Your task to perform on an android device: Open calendar and show me the second week of next month Image 0: 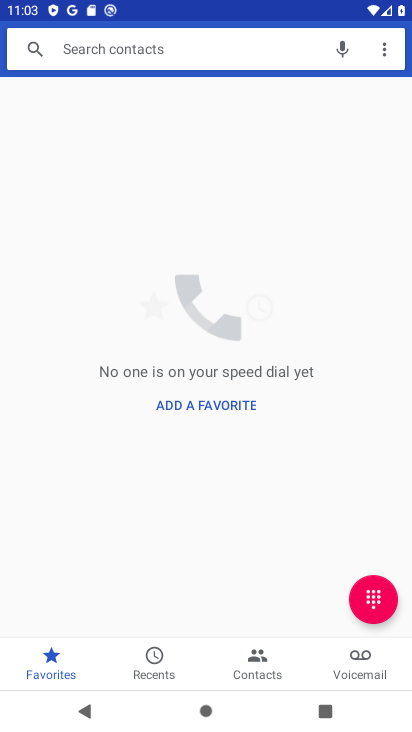
Step 0: press home button
Your task to perform on an android device: Open calendar and show me the second week of next month Image 1: 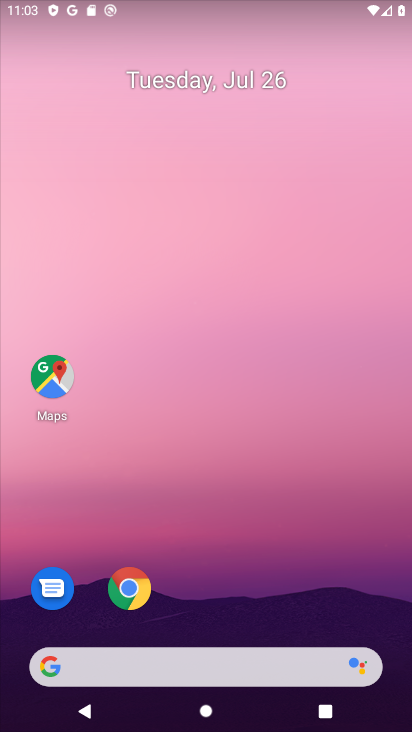
Step 1: drag from (232, 605) to (299, 28)
Your task to perform on an android device: Open calendar and show me the second week of next month Image 2: 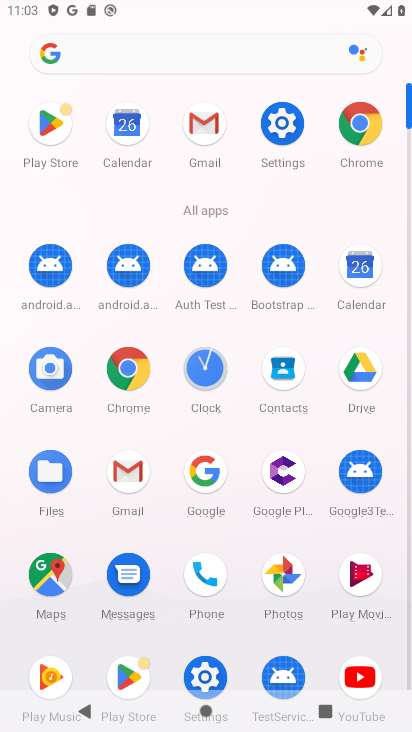
Step 2: click (355, 260)
Your task to perform on an android device: Open calendar and show me the second week of next month Image 3: 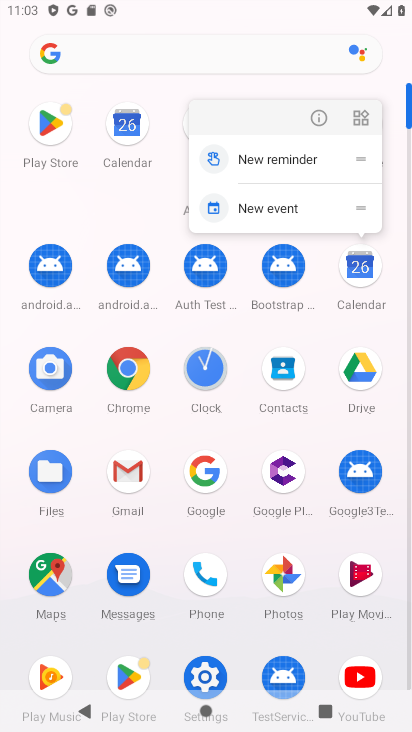
Step 3: click (363, 267)
Your task to perform on an android device: Open calendar and show me the second week of next month Image 4: 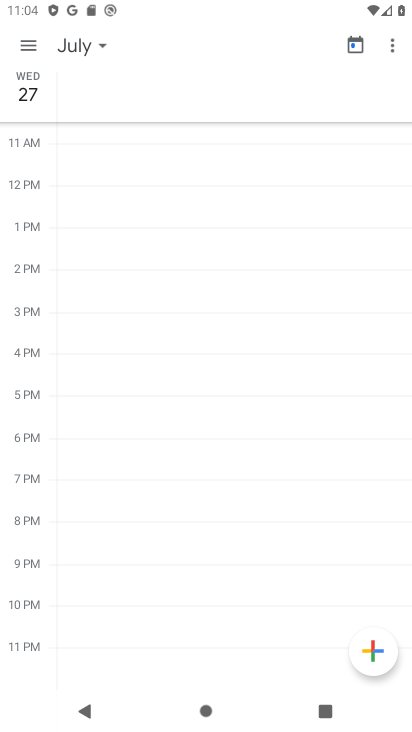
Step 4: click (102, 42)
Your task to perform on an android device: Open calendar and show me the second week of next month Image 5: 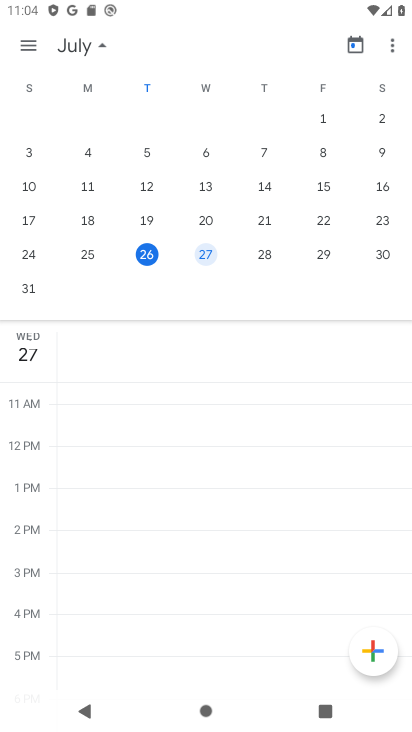
Step 5: drag from (352, 191) to (8, 175)
Your task to perform on an android device: Open calendar and show me the second week of next month Image 6: 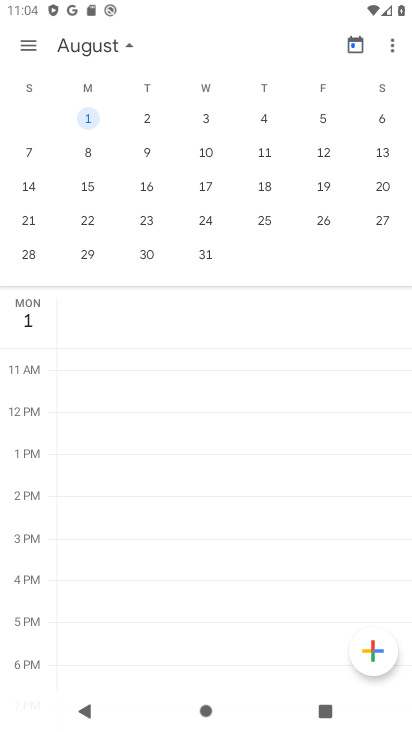
Step 6: click (30, 148)
Your task to perform on an android device: Open calendar and show me the second week of next month Image 7: 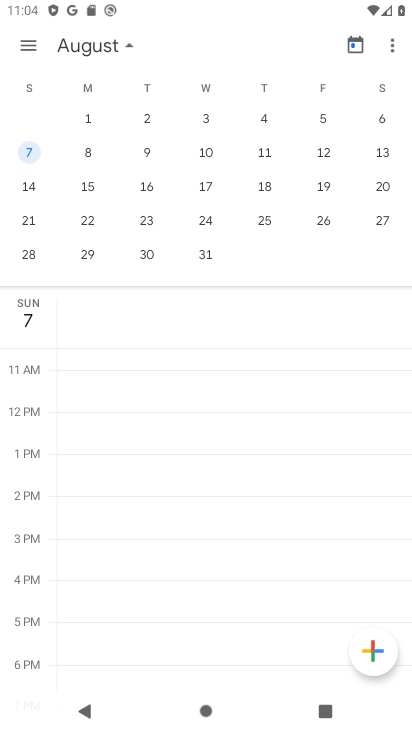
Step 7: click (21, 48)
Your task to perform on an android device: Open calendar and show me the second week of next month Image 8: 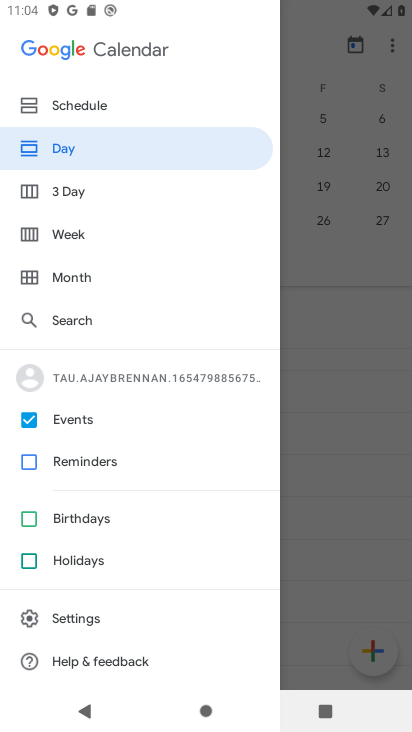
Step 8: click (72, 229)
Your task to perform on an android device: Open calendar and show me the second week of next month Image 9: 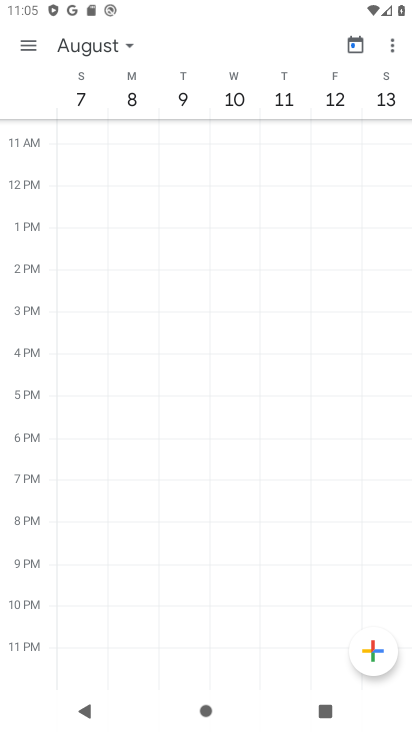
Step 9: task complete